Your task to perform on an android device: Go to notification settings Image 0: 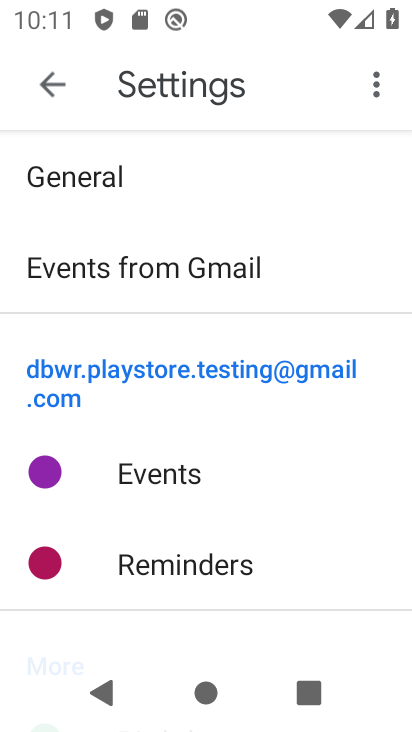
Step 0: click (61, 76)
Your task to perform on an android device: Go to notification settings Image 1: 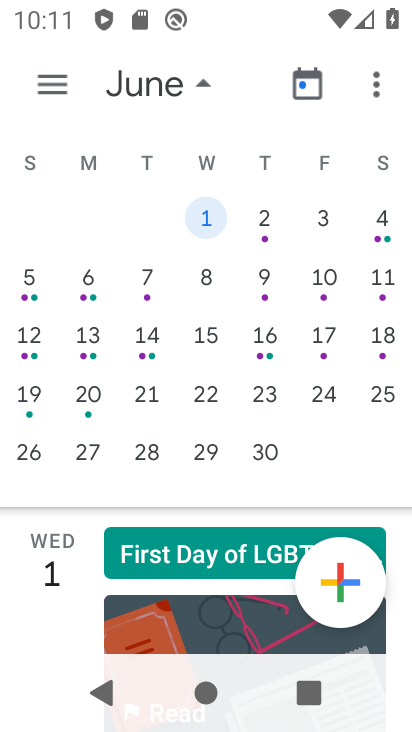
Step 1: press back button
Your task to perform on an android device: Go to notification settings Image 2: 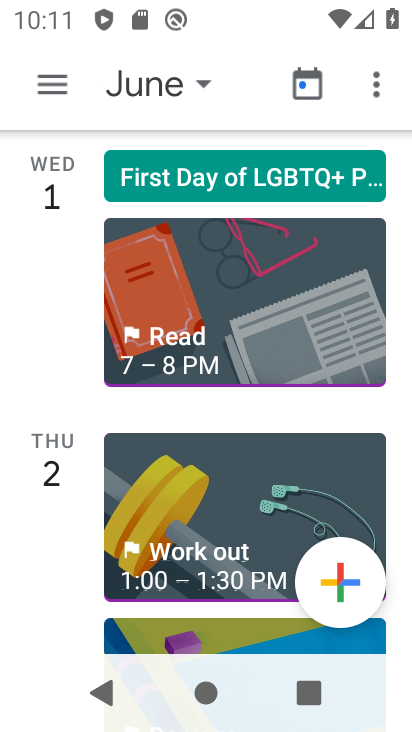
Step 2: press back button
Your task to perform on an android device: Go to notification settings Image 3: 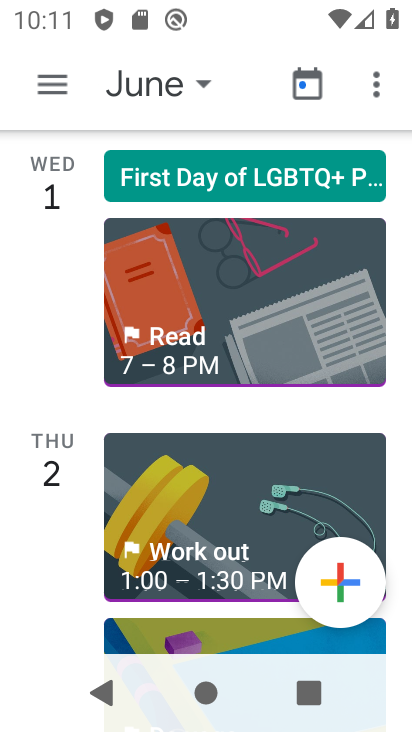
Step 3: press back button
Your task to perform on an android device: Go to notification settings Image 4: 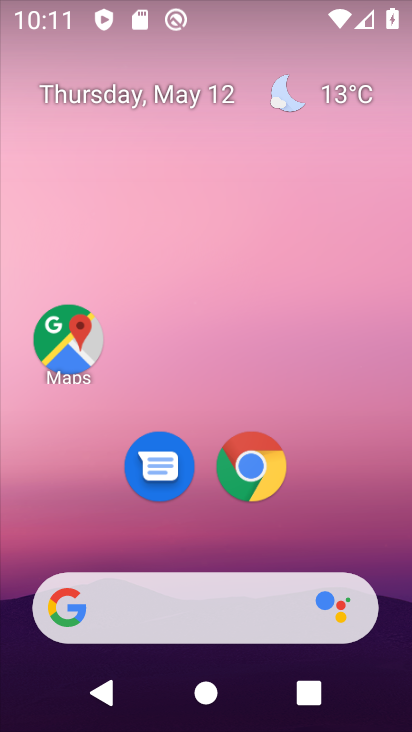
Step 4: drag from (241, 567) to (284, 25)
Your task to perform on an android device: Go to notification settings Image 5: 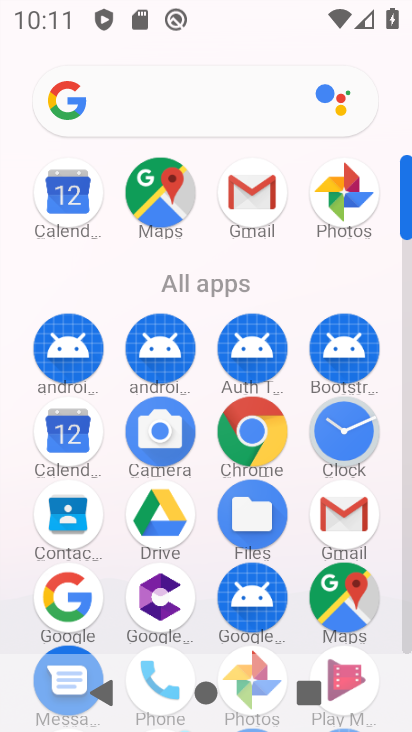
Step 5: drag from (197, 493) to (245, 73)
Your task to perform on an android device: Go to notification settings Image 6: 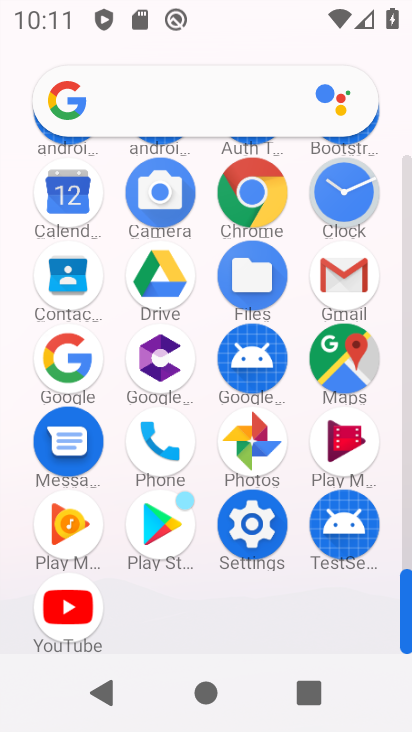
Step 6: click (253, 538)
Your task to perform on an android device: Go to notification settings Image 7: 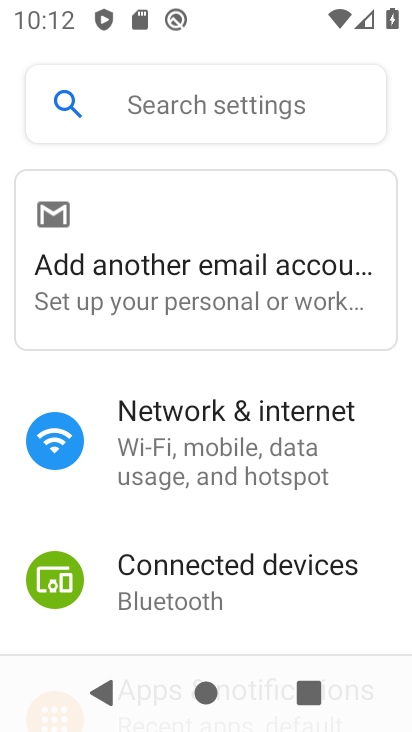
Step 7: drag from (219, 625) to (267, 295)
Your task to perform on an android device: Go to notification settings Image 8: 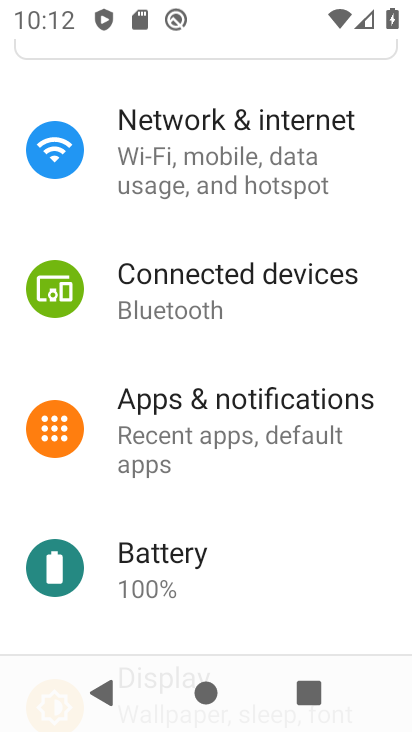
Step 8: click (273, 423)
Your task to perform on an android device: Go to notification settings Image 9: 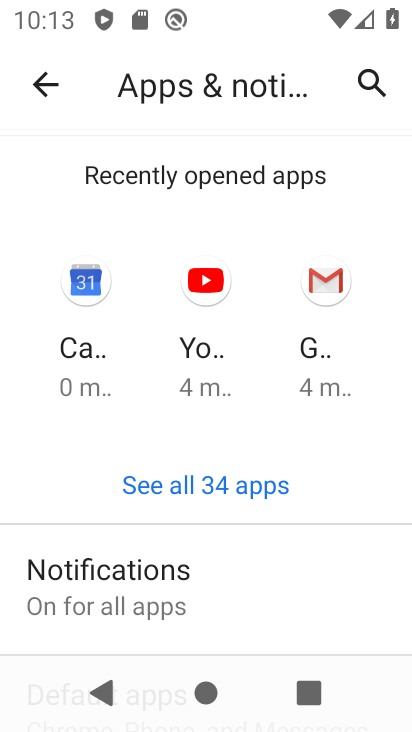
Step 9: task complete